Your task to perform on an android device: Open Youtube and go to "Your channel" Image 0: 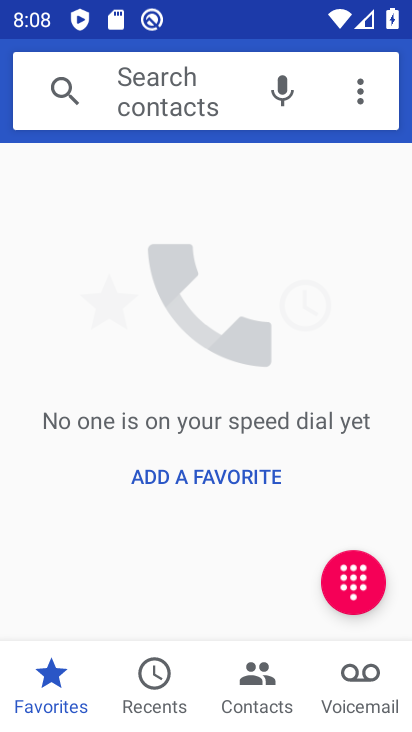
Step 0: press home button
Your task to perform on an android device: Open Youtube and go to "Your channel" Image 1: 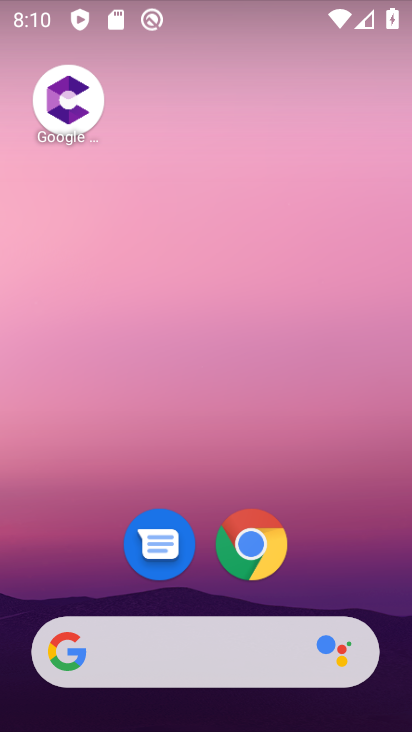
Step 1: drag from (287, 154) to (294, 48)
Your task to perform on an android device: Open Youtube and go to "Your channel" Image 2: 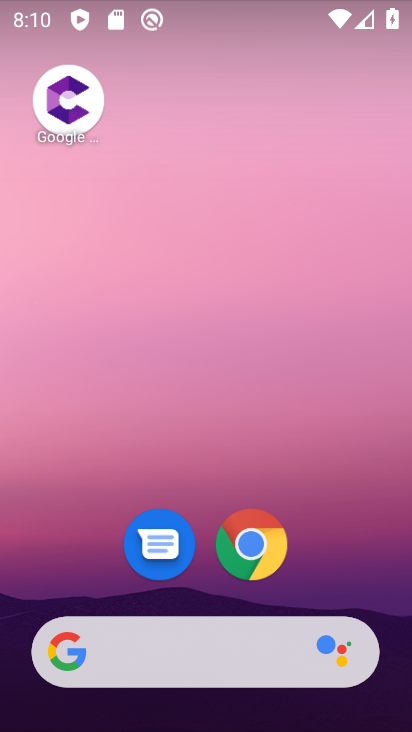
Step 2: drag from (341, 547) to (298, 73)
Your task to perform on an android device: Open Youtube and go to "Your channel" Image 3: 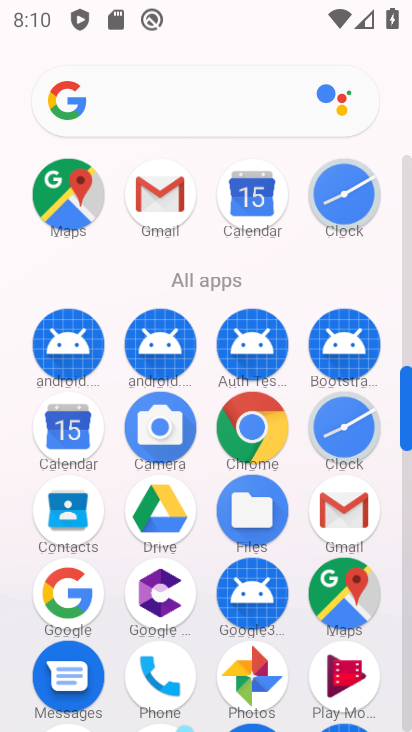
Step 3: drag from (293, 563) to (314, 234)
Your task to perform on an android device: Open Youtube and go to "Your channel" Image 4: 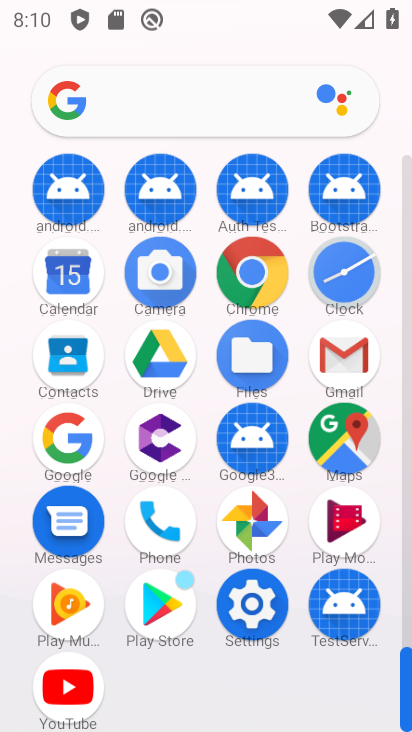
Step 4: click (67, 672)
Your task to perform on an android device: Open Youtube and go to "Your channel" Image 5: 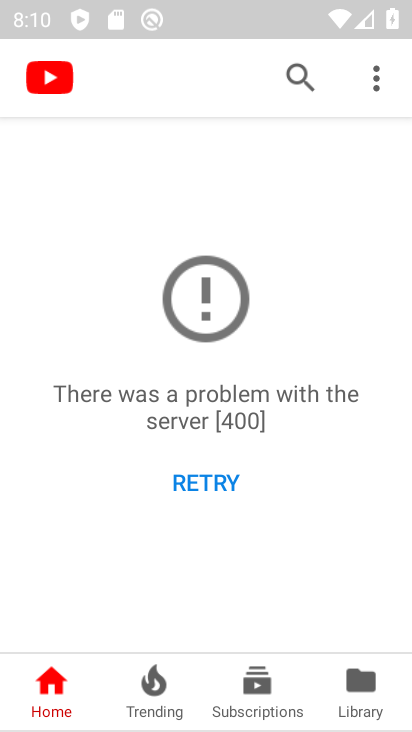
Step 5: task complete